Your task to perform on an android device: change the clock display to show seconds Image 0: 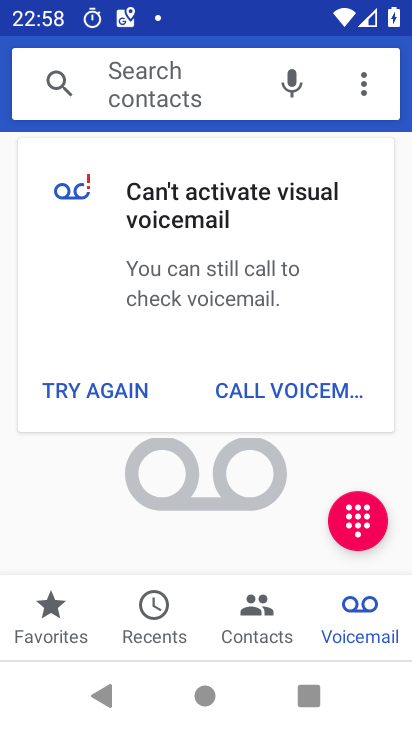
Step 0: press home button
Your task to perform on an android device: change the clock display to show seconds Image 1: 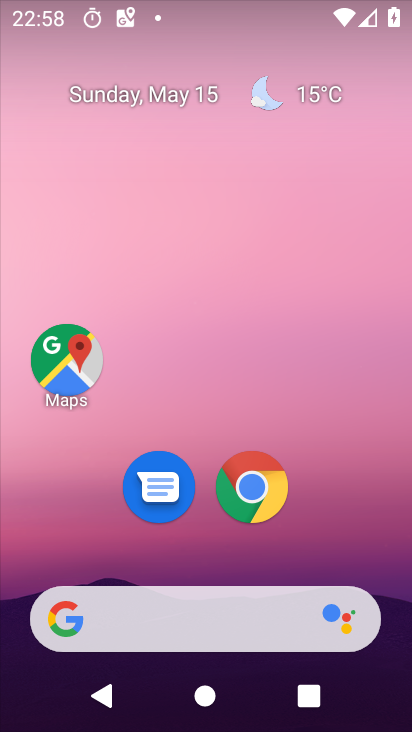
Step 1: drag from (388, 621) to (367, 252)
Your task to perform on an android device: change the clock display to show seconds Image 2: 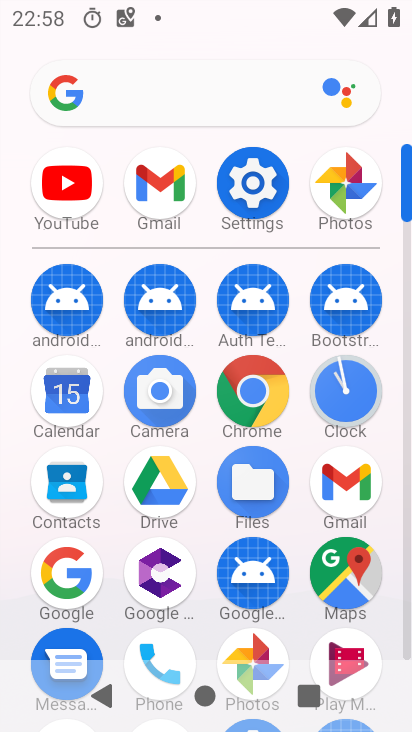
Step 2: click (341, 392)
Your task to perform on an android device: change the clock display to show seconds Image 3: 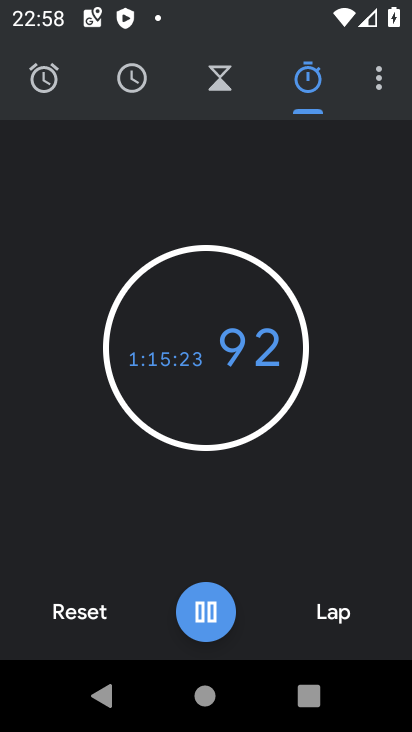
Step 3: click (132, 83)
Your task to perform on an android device: change the clock display to show seconds Image 4: 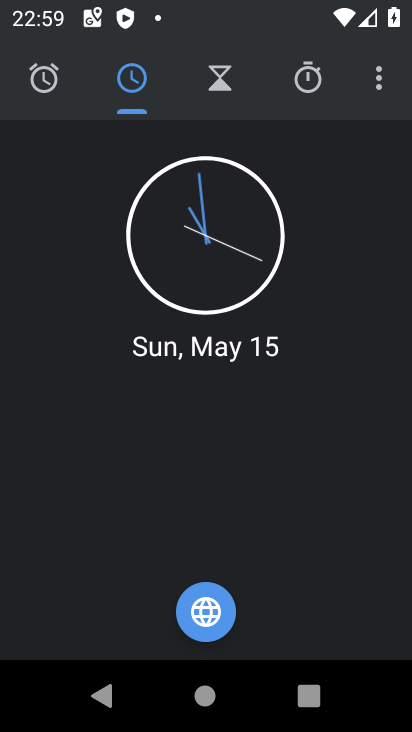
Step 4: click (381, 74)
Your task to perform on an android device: change the clock display to show seconds Image 5: 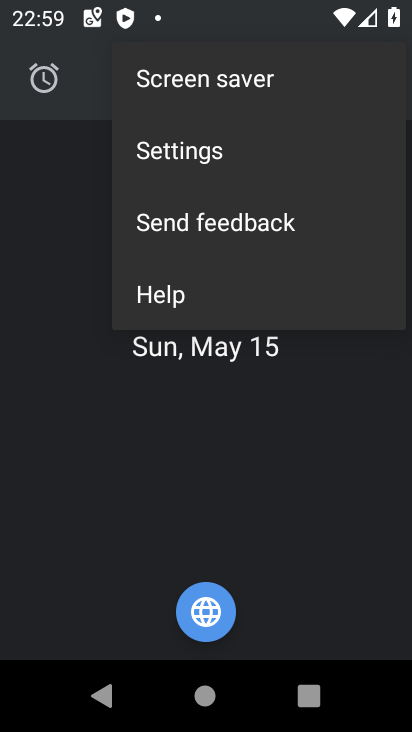
Step 5: click (183, 156)
Your task to perform on an android device: change the clock display to show seconds Image 6: 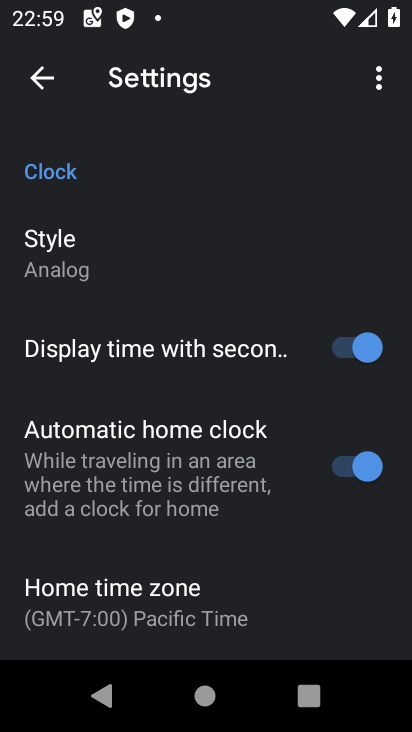
Step 6: click (63, 242)
Your task to perform on an android device: change the clock display to show seconds Image 7: 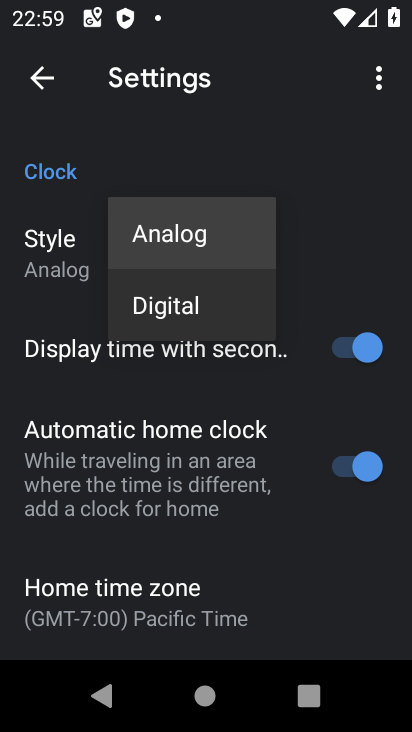
Step 7: click (196, 302)
Your task to perform on an android device: change the clock display to show seconds Image 8: 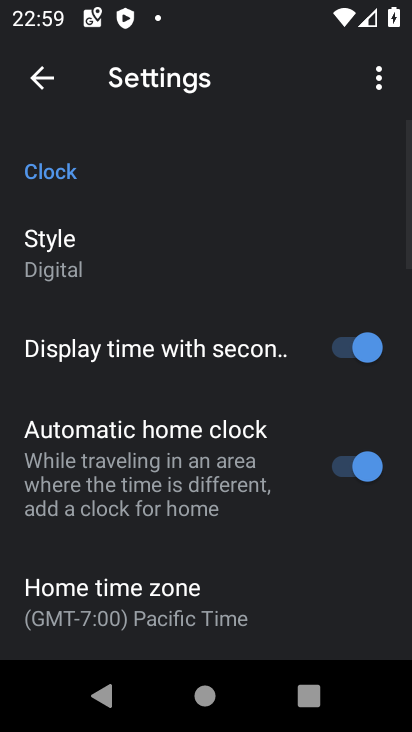
Step 8: click (54, 234)
Your task to perform on an android device: change the clock display to show seconds Image 9: 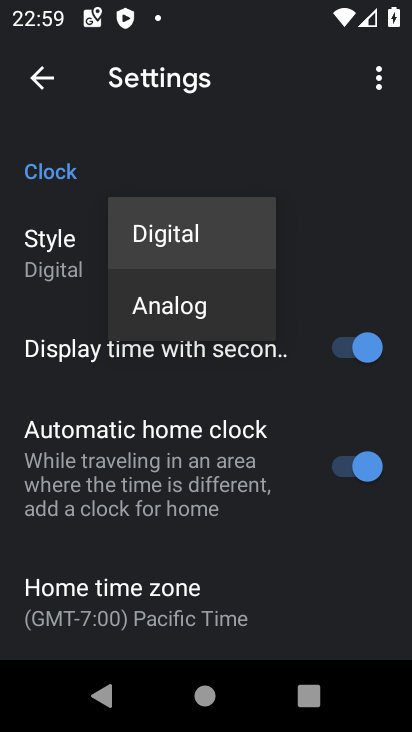
Step 9: click (174, 238)
Your task to perform on an android device: change the clock display to show seconds Image 10: 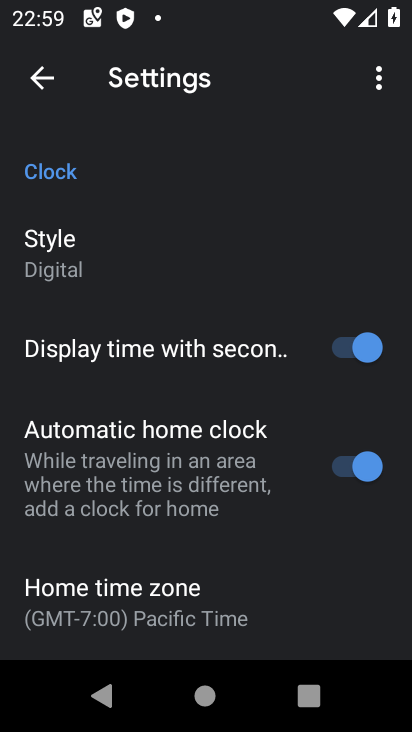
Step 10: task complete